Your task to perform on an android device: find snoozed emails in the gmail app Image 0: 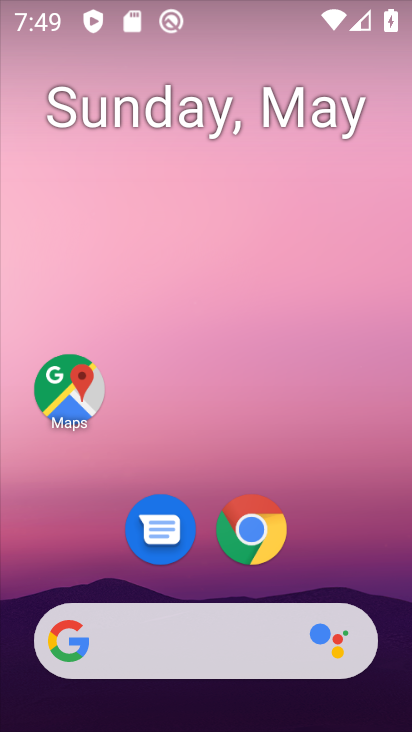
Step 0: drag from (200, 509) to (216, 86)
Your task to perform on an android device: find snoozed emails in the gmail app Image 1: 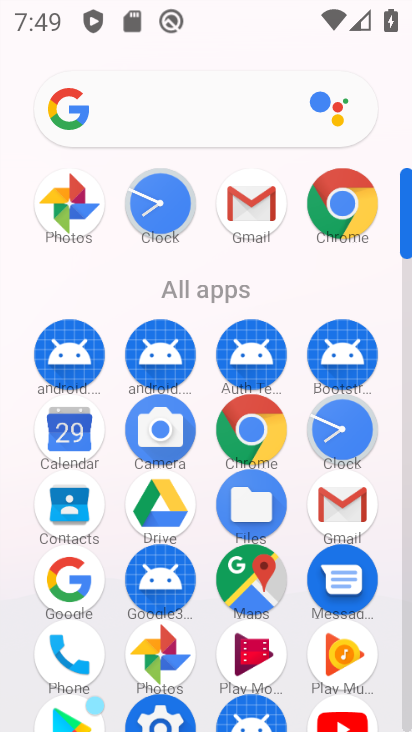
Step 1: click (257, 211)
Your task to perform on an android device: find snoozed emails in the gmail app Image 2: 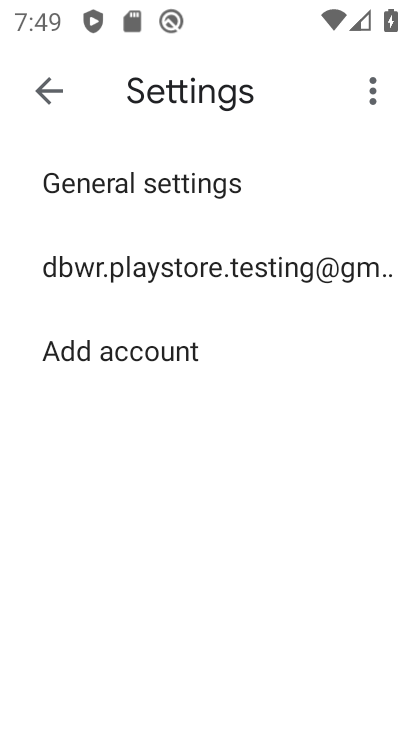
Step 2: click (49, 81)
Your task to perform on an android device: find snoozed emails in the gmail app Image 3: 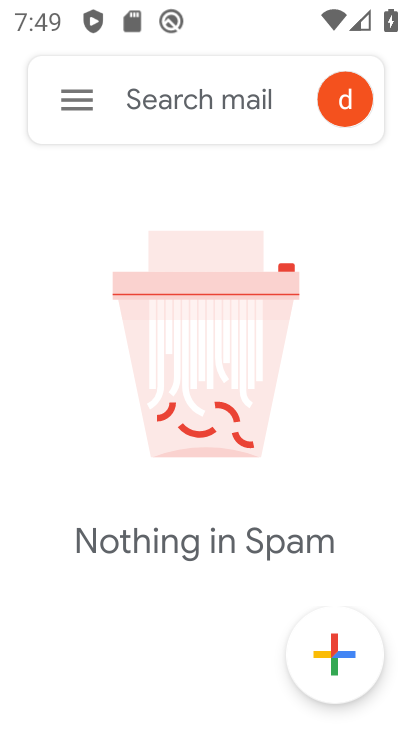
Step 3: click (60, 99)
Your task to perform on an android device: find snoozed emails in the gmail app Image 4: 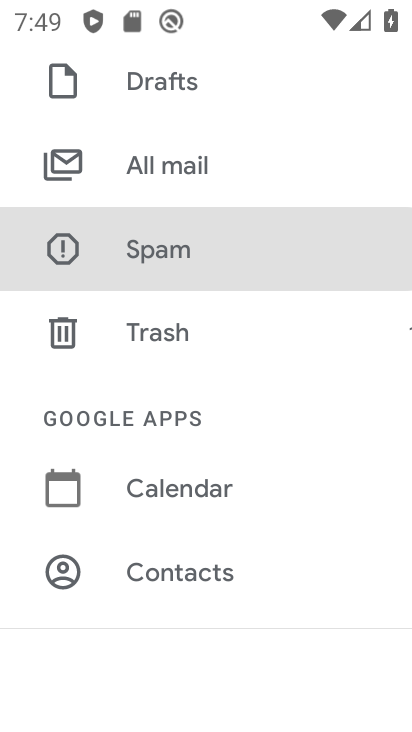
Step 4: click (209, 170)
Your task to perform on an android device: find snoozed emails in the gmail app Image 5: 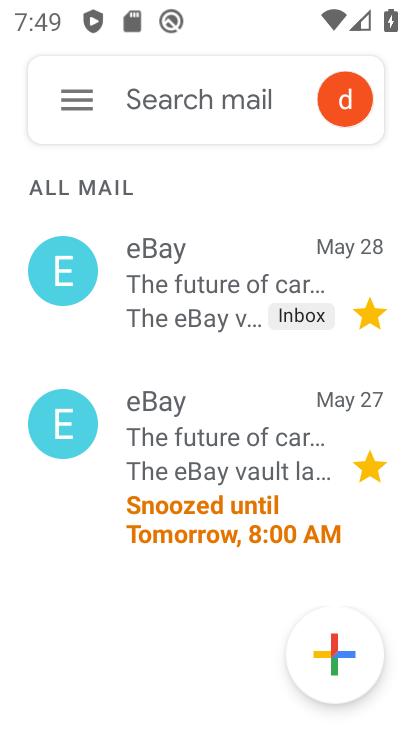
Step 5: click (67, 103)
Your task to perform on an android device: find snoozed emails in the gmail app Image 6: 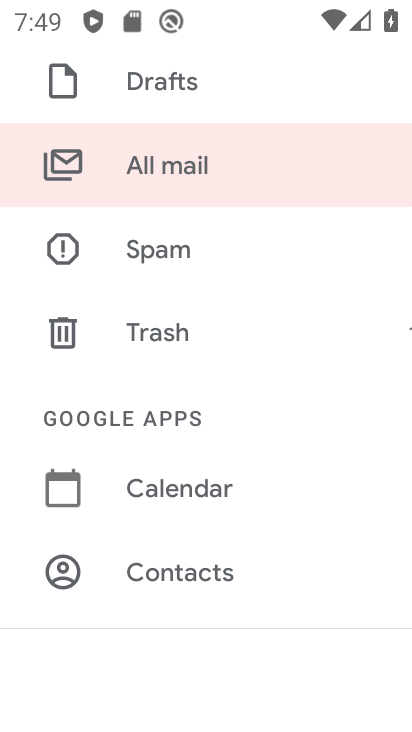
Step 6: drag from (159, 140) to (193, 600)
Your task to perform on an android device: find snoozed emails in the gmail app Image 7: 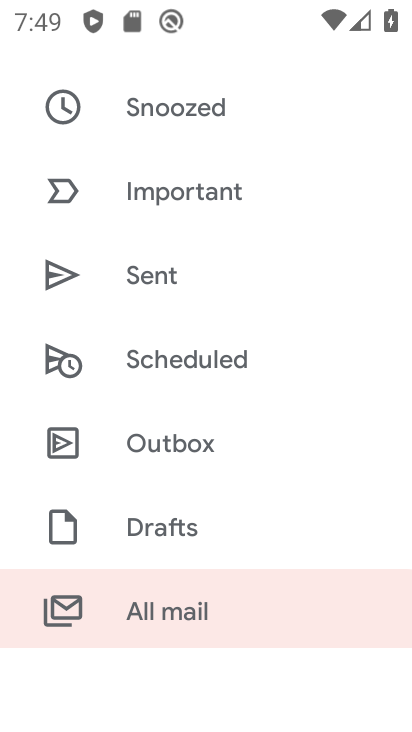
Step 7: click (162, 131)
Your task to perform on an android device: find snoozed emails in the gmail app Image 8: 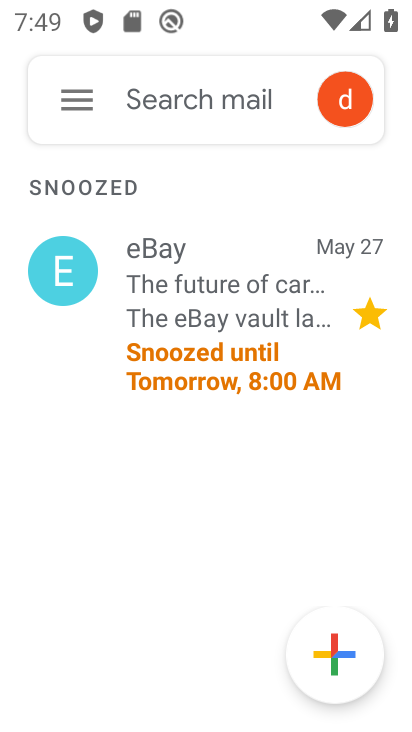
Step 8: task complete